Your task to perform on an android device: empty trash in google photos Image 0: 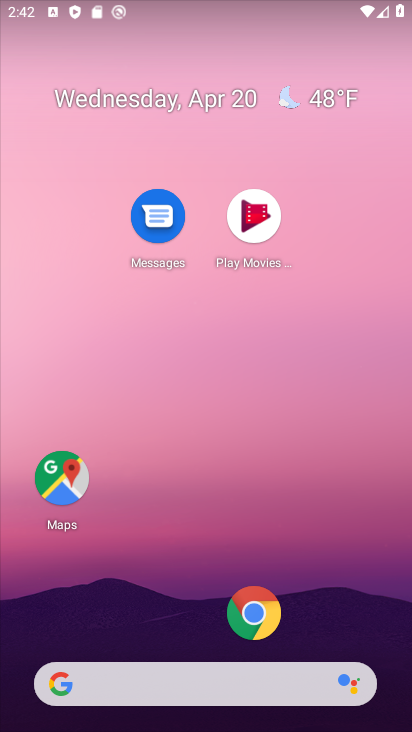
Step 0: drag from (165, 605) to (165, 48)
Your task to perform on an android device: empty trash in google photos Image 1: 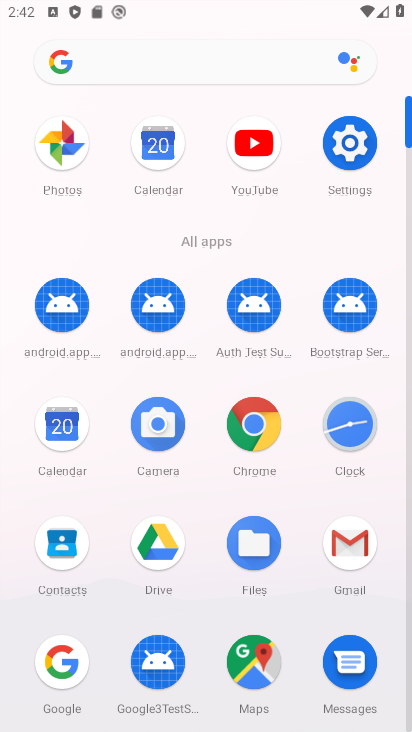
Step 1: click (56, 151)
Your task to perform on an android device: empty trash in google photos Image 2: 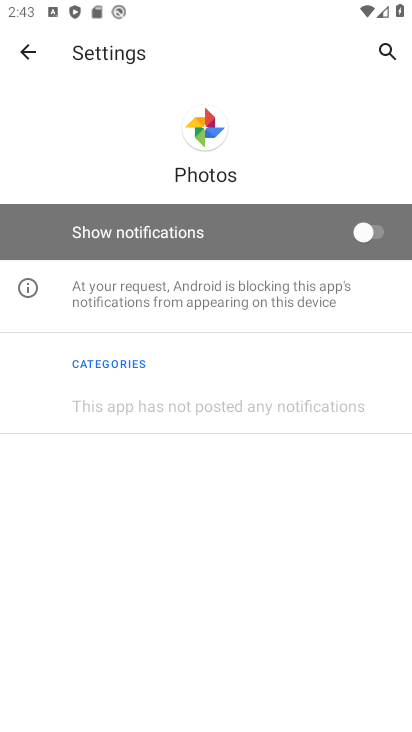
Step 2: click (31, 64)
Your task to perform on an android device: empty trash in google photos Image 3: 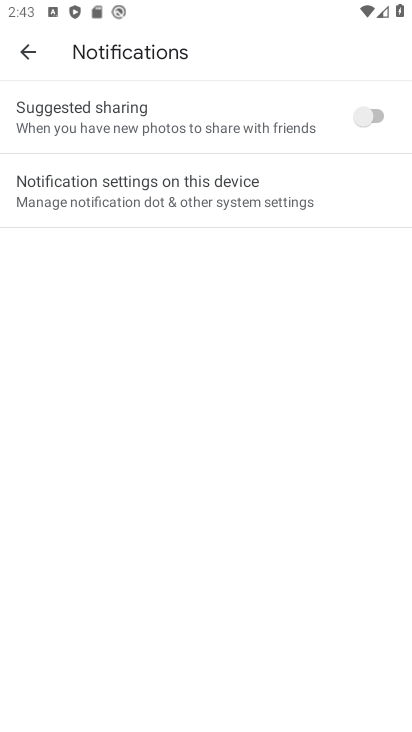
Step 3: click (34, 46)
Your task to perform on an android device: empty trash in google photos Image 4: 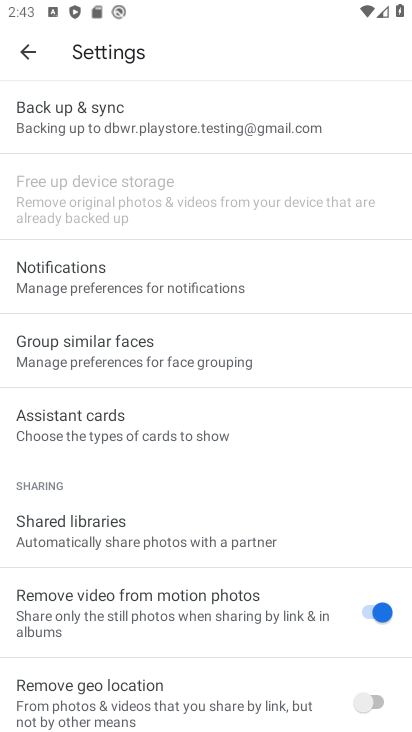
Step 4: click (24, 67)
Your task to perform on an android device: empty trash in google photos Image 5: 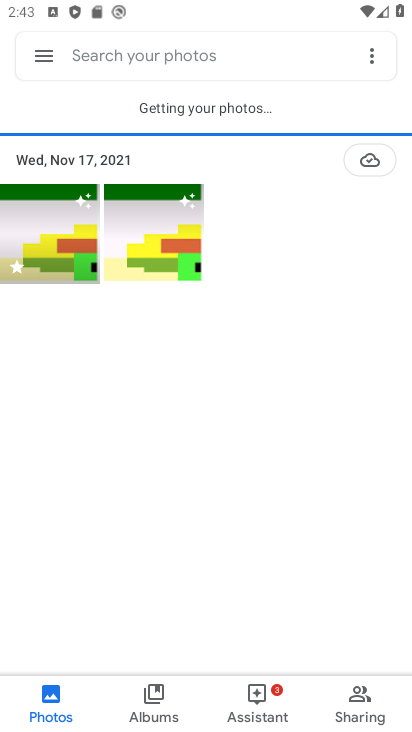
Step 5: click (359, 720)
Your task to perform on an android device: empty trash in google photos Image 6: 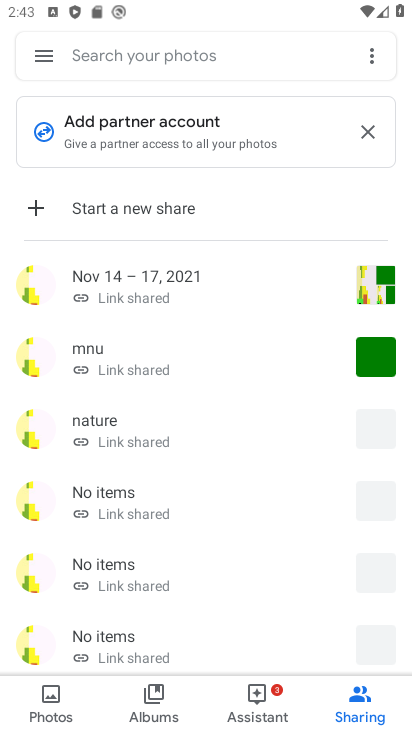
Step 6: click (50, 55)
Your task to perform on an android device: empty trash in google photos Image 7: 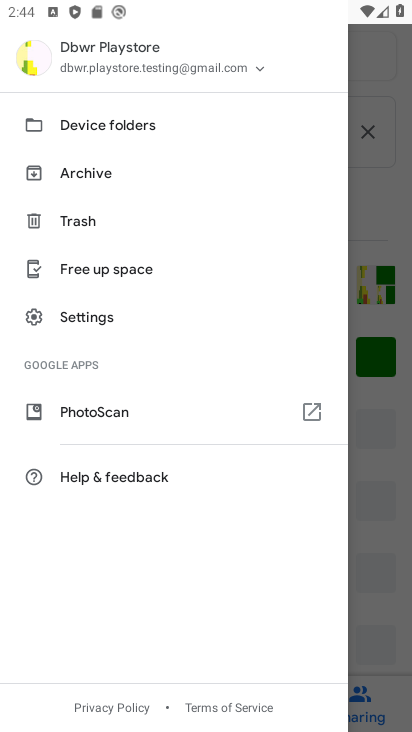
Step 7: click (112, 230)
Your task to perform on an android device: empty trash in google photos Image 8: 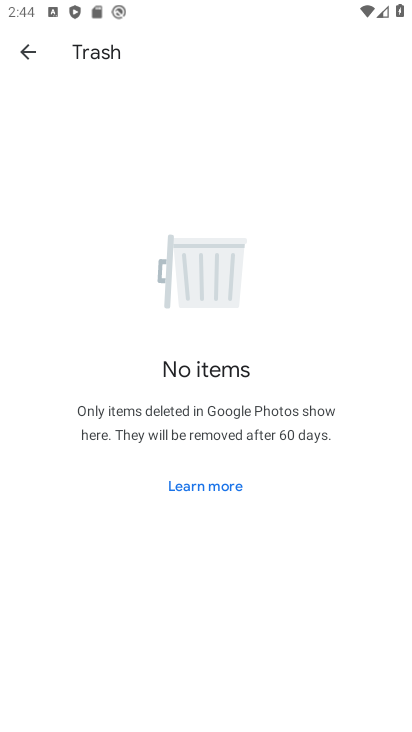
Step 8: task complete